Your task to perform on an android device: refresh tabs in the chrome app Image 0: 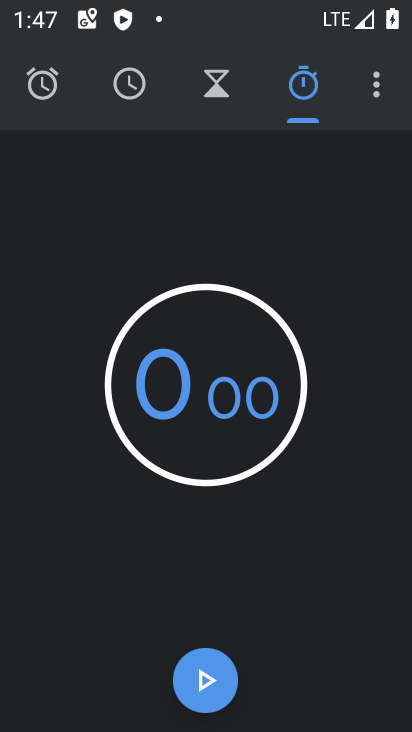
Step 0: press home button
Your task to perform on an android device: refresh tabs in the chrome app Image 1: 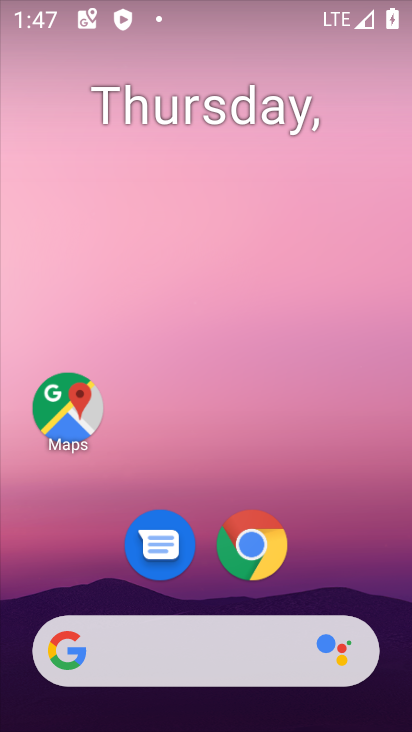
Step 1: click (258, 548)
Your task to perform on an android device: refresh tabs in the chrome app Image 2: 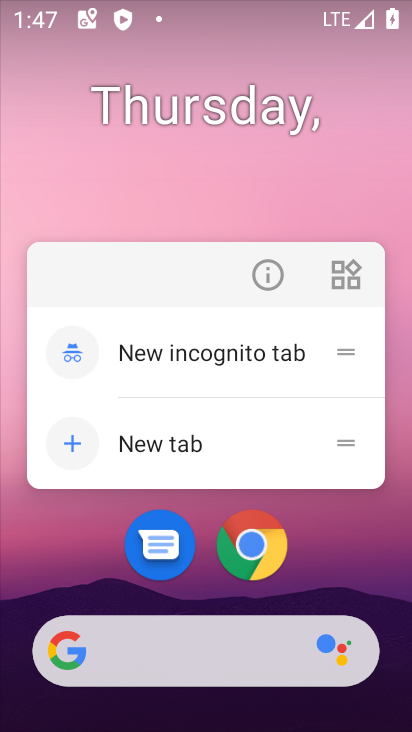
Step 2: click (258, 547)
Your task to perform on an android device: refresh tabs in the chrome app Image 3: 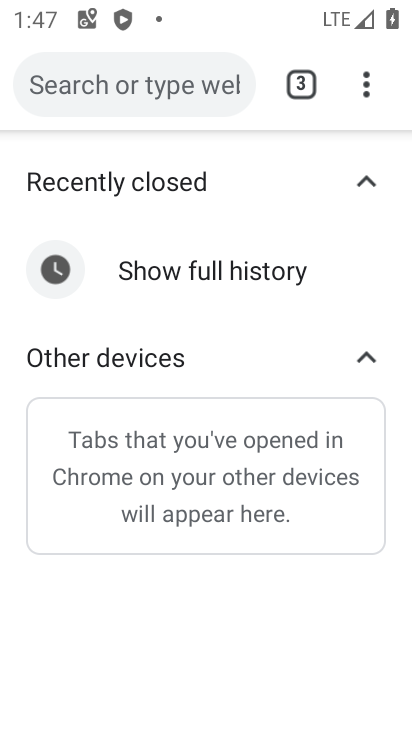
Step 3: click (360, 80)
Your task to perform on an android device: refresh tabs in the chrome app Image 4: 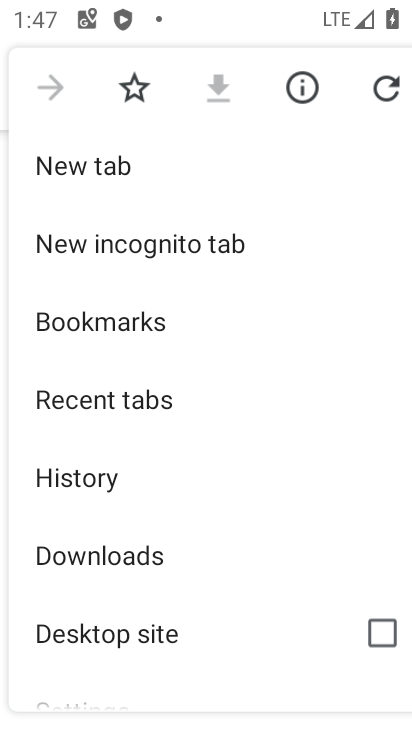
Step 4: click (391, 92)
Your task to perform on an android device: refresh tabs in the chrome app Image 5: 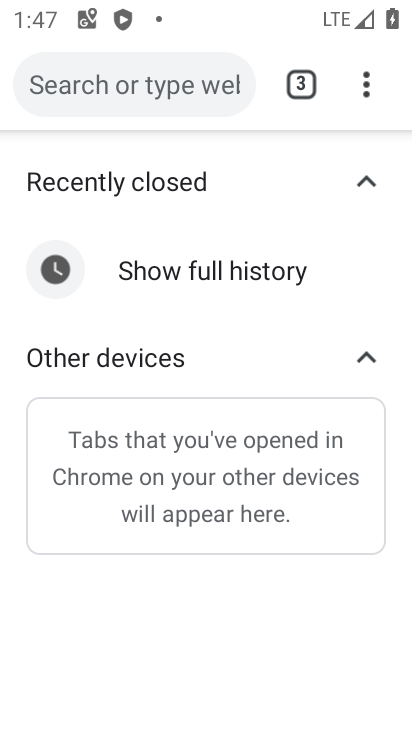
Step 5: task complete